Your task to perform on an android device: Go to battery settings Image 0: 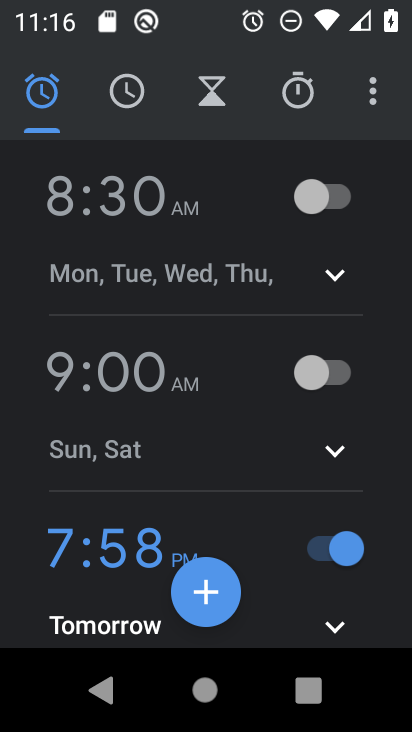
Step 0: press home button
Your task to perform on an android device: Go to battery settings Image 1: 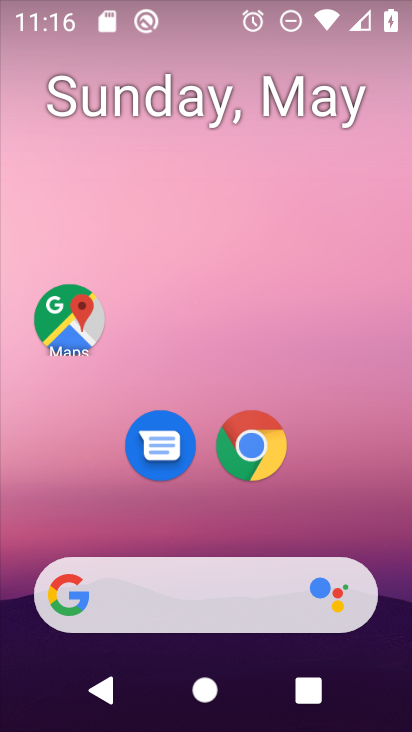
Step 1: drag from (278, 616) to (280, 175)
Your task to perform on an android device: Go to battery settings Image 2: 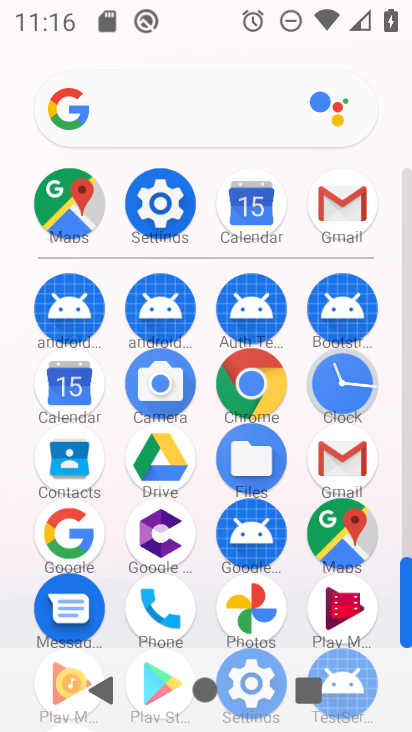
Step 2: click (179, 218)
Your task to perform on an android device: Go to battery settings Image 3: 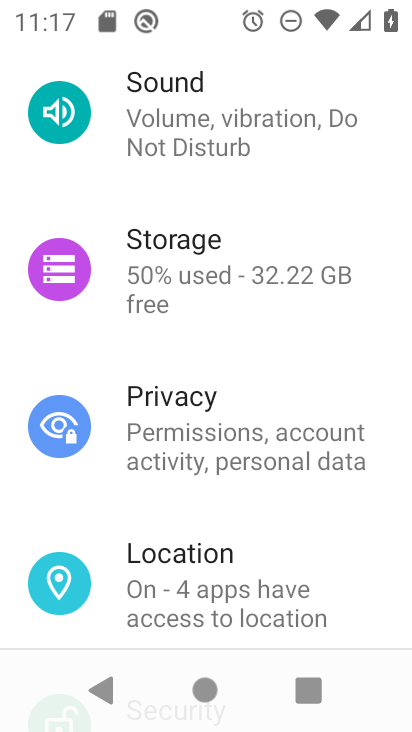
Step 3: drag from (233, 314) to (260, 609)
Your task to perform on an android device: Go to battery settings Image 4: 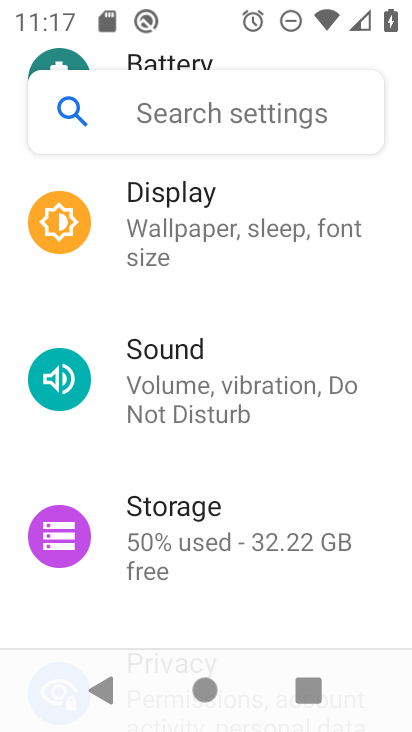
Step 4: drag from (203, 278) to (213, 546)
Your task to perform on an android device: Go to battery settings Image 5: 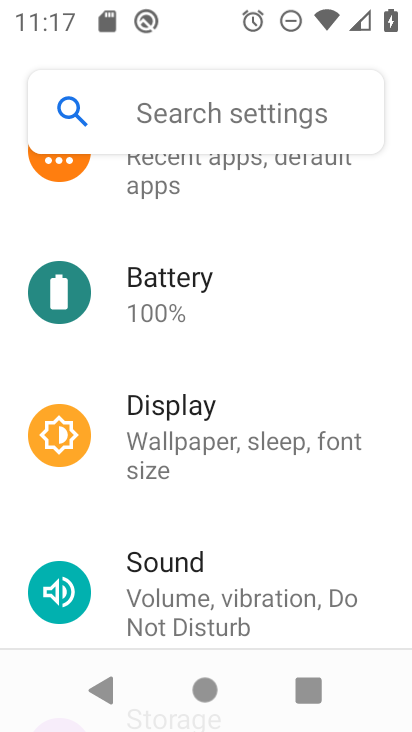
Step 5: click (195, 322)
Your task to perform on an android device: Go to battery settings Image 6: 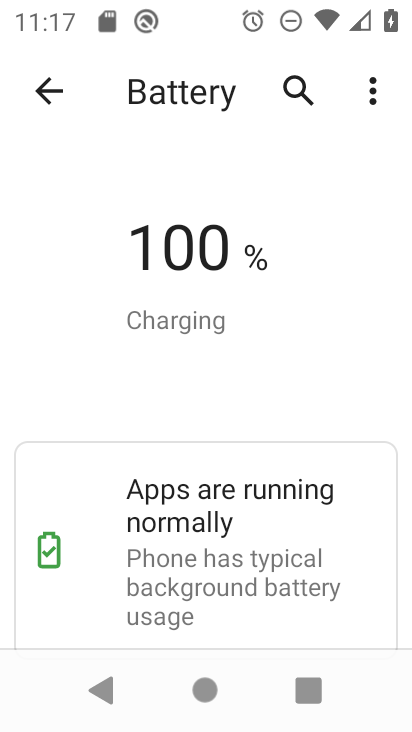
Step 6: task complete